Your task to perform on an android device: Open Amazon Image 0: 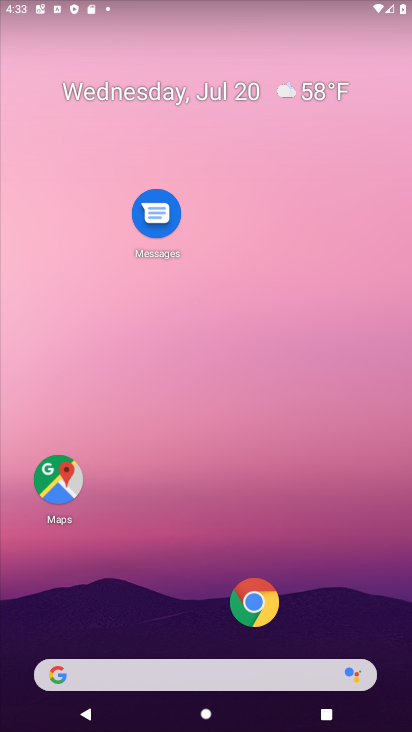
Step 0: click (255, 601)
Your task to perform on an android device: Open Amazon Image 1: 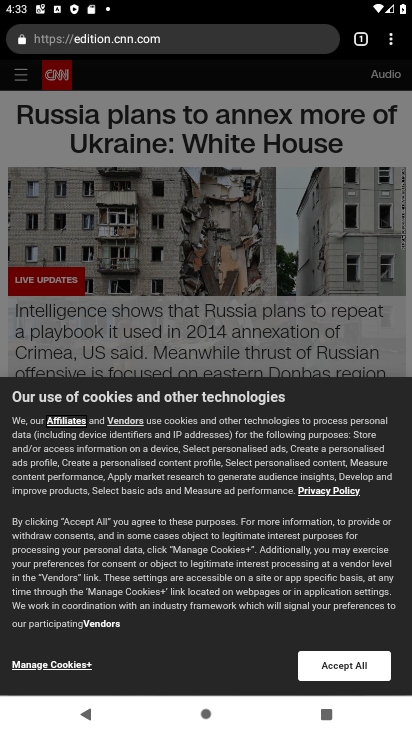
Step 1: click (360, 46)
Your task to perform on an android device: Open Amazon Image 2: 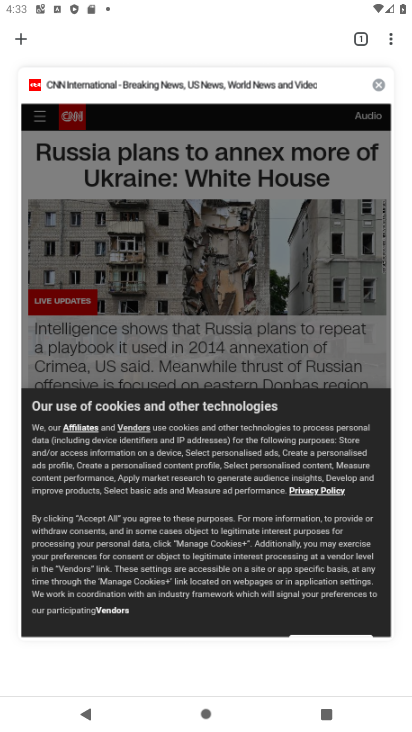
Step 2: click (380, 81)
Your task to perform on an android device: Open Amazon Image 3: 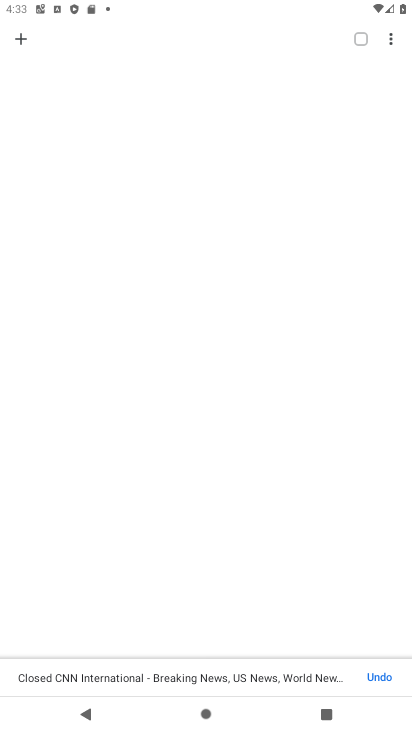
Step 3: click (18, 40)
Your task to perform on an android device: Open Amazon Image 4: 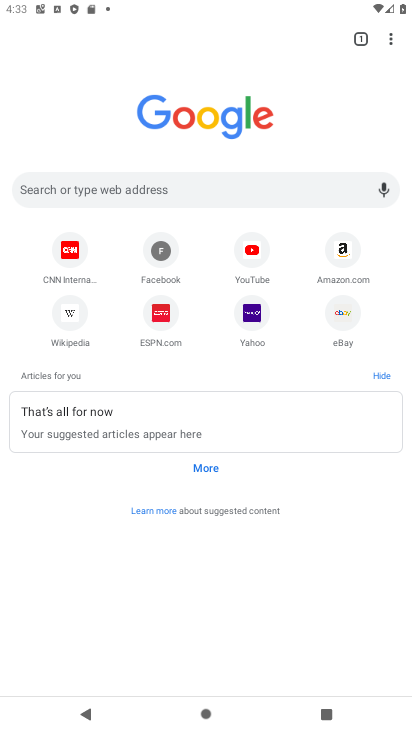
Step 4: click (331, 267)
Your task to perform on an android device: Open Amazon Image 5: 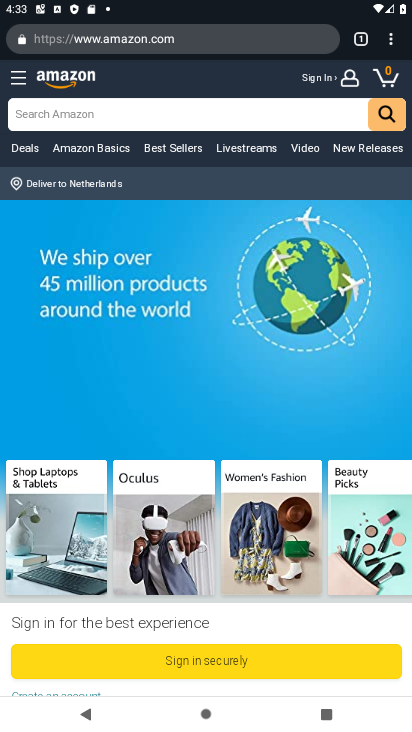
Step 5: task complete